Your task to perform on an android device: toggle notifications settings in the gmail app Image 0: 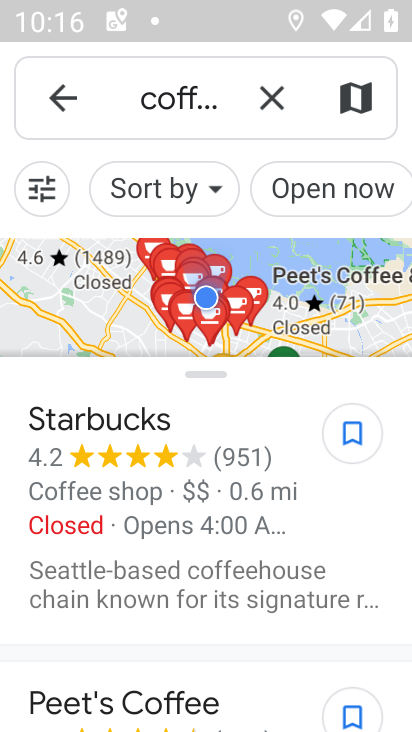
Step 0: task complete